Your task to perform on an android device: add a label to a message in the gmail app Image 0: 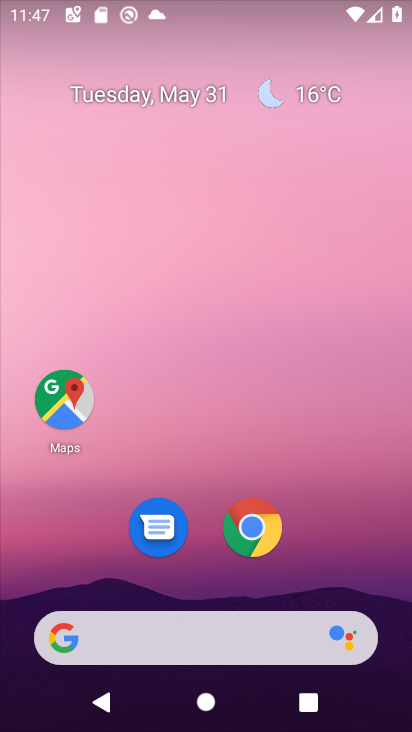
Step 0: drag from (340, 577) to (312, 5)
Your task to perform on an android device: add a label to a message in the gmail app Image 1: 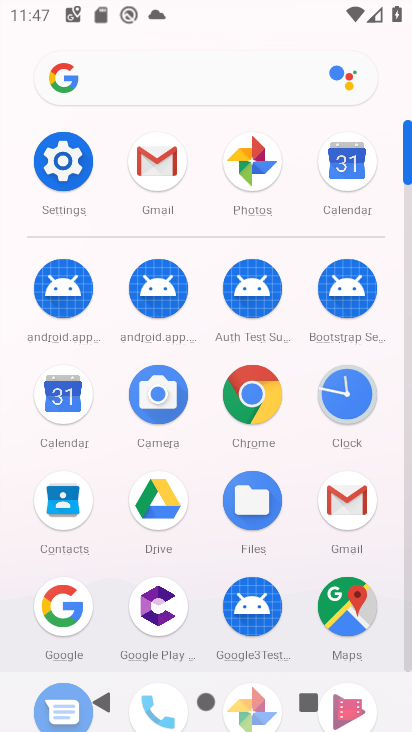
Step 1: click (344, 492)
Your task to perform on an android device: add a label to a message in the gmail app Image 2: 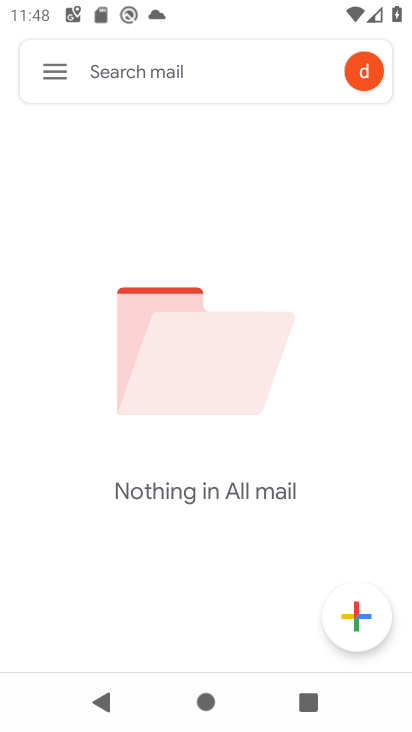
Step 2: task complete